Your task to perform on an android device: Open network settings Image 0: 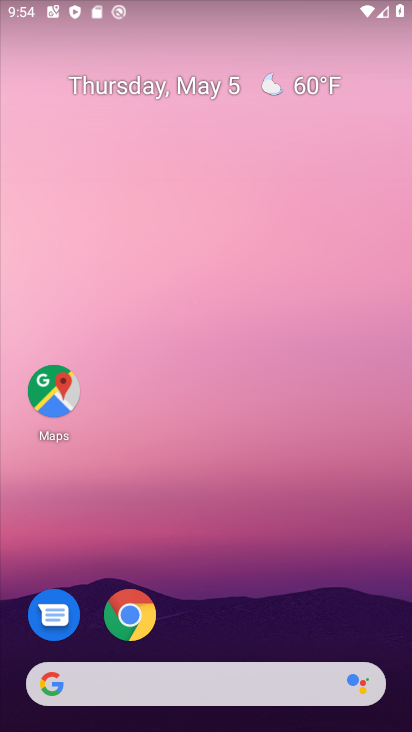
Step 0: drag from (211, 627) to (235, 190)
Your task to perform on an android device: Open network settings Image 1: 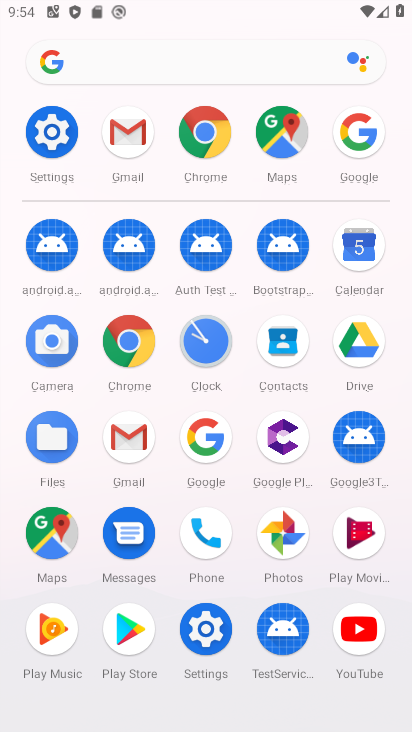
Step 1: click (53, 134)
Your task to perform on an android device: Open network settings Image 2: 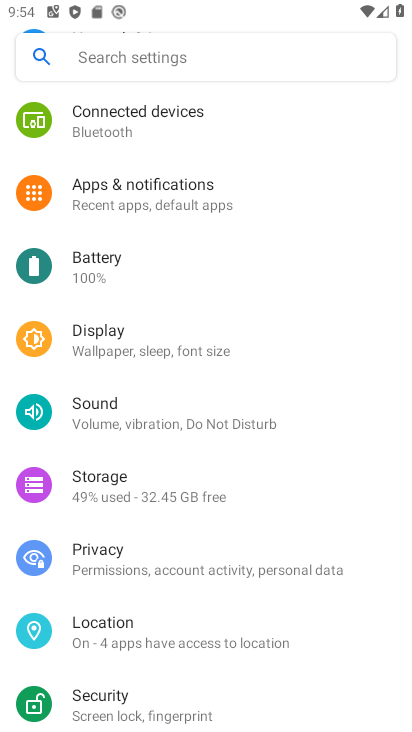
Step 2: drag from (158, 172) to (209, 356)
Your task to perform on an android device: Open network settings Image 3: 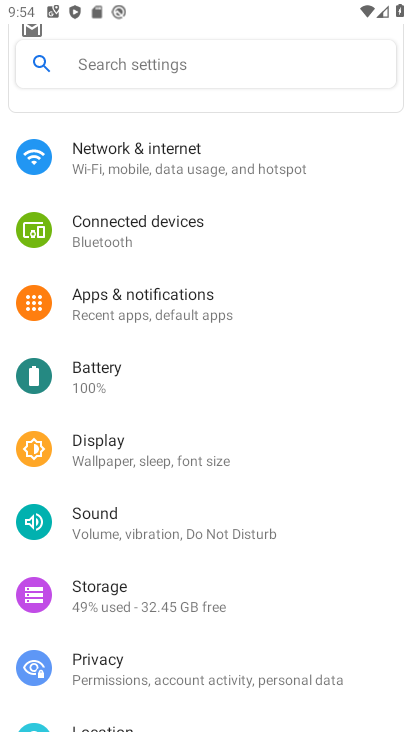
Step 3: click (151, 172)
Your task to perform on an android device: Open network settings Image 4: 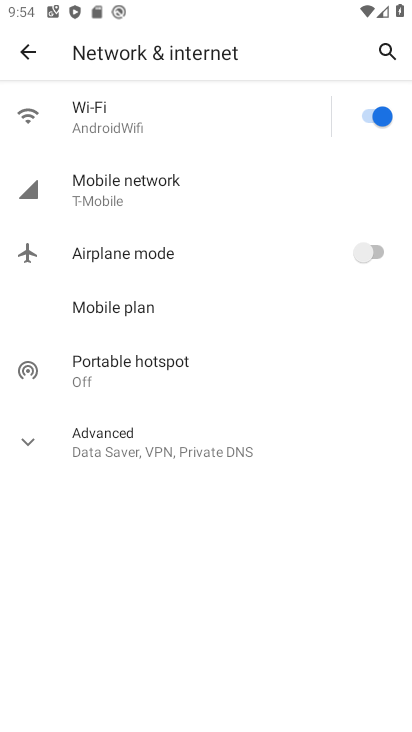
Step 4: click (162, 184)
Your task to perform on an android device: Open network settings Image 5: 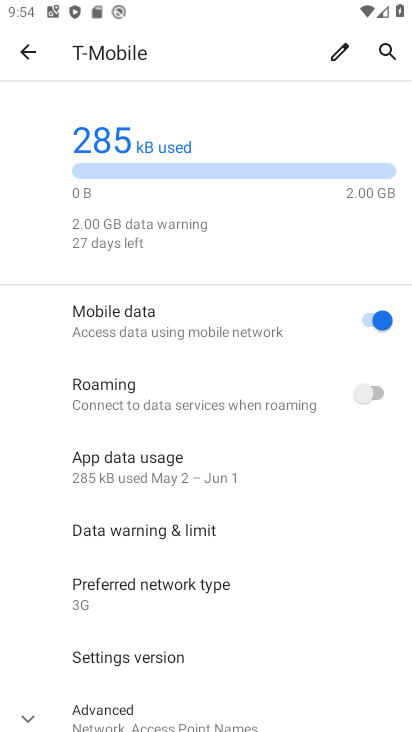
Step 5: task complete